Your task to perform on an android device: toggle priority inbox in the gmail app Image 0: 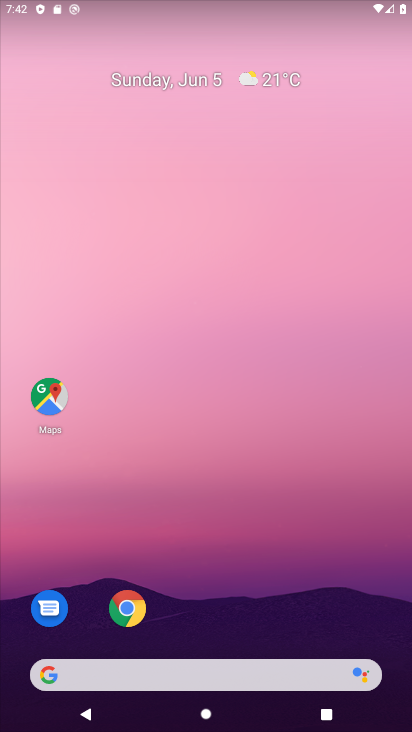
Step 0: drag from (262, 296) to (262, 104)
Your task to perform on an android device: toggle priority inbox in the gmail app Image 1: 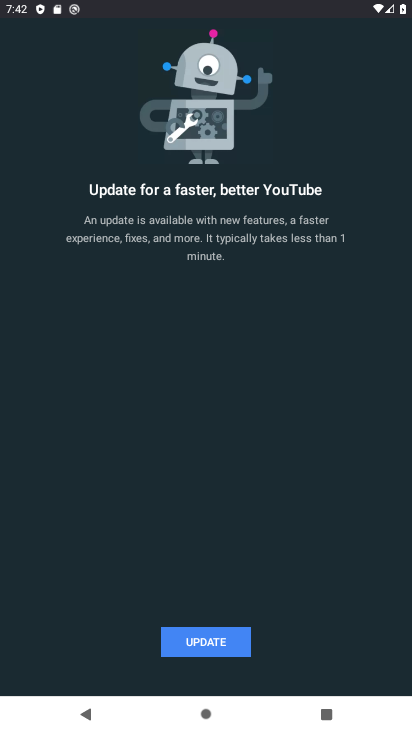
Step 1: press home button
Your task to perform on an android device: toggle priority inbox in the gmail app Image 2: 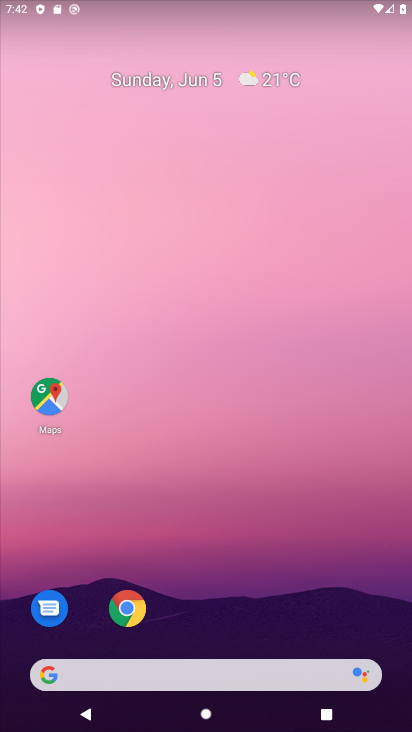
Step 2: drag from (348, 589) to (338, 155)
Your task to perform on an android device: toggle priority inbox in the gmail app Image 3: 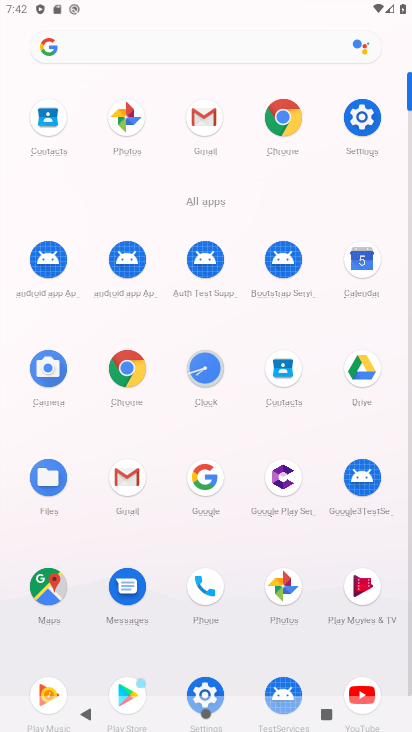
Step 3: click (128, 491)
Your task to perform on an android device: toggle priority inbox in the gmail app Image 4: 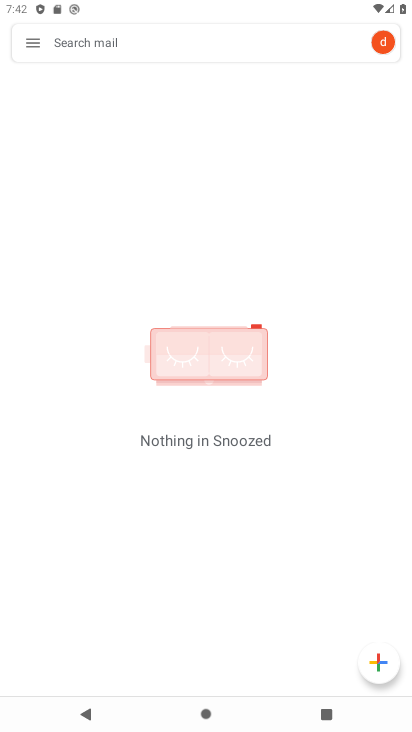
Step 4: click (33, 41)
Your task to perform on an android device: toggle priority inbox in the gmail app Image 5: 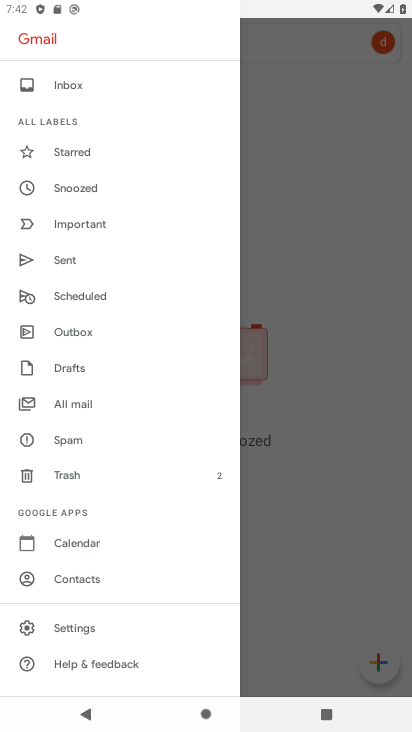
Step 5: click (108, 638)
Your task to perform on an android device: toggle priority inbox in the gmail app Image 6: 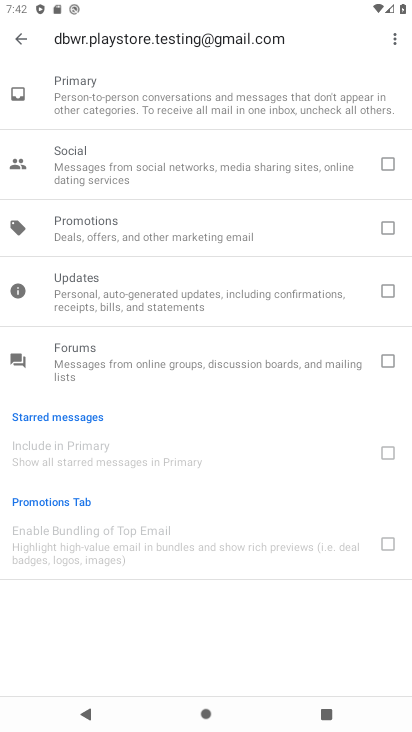
Step 6: click (23, 35)
Your task to perform on an android device: toggle priority inbox in the gmail app Image 7: 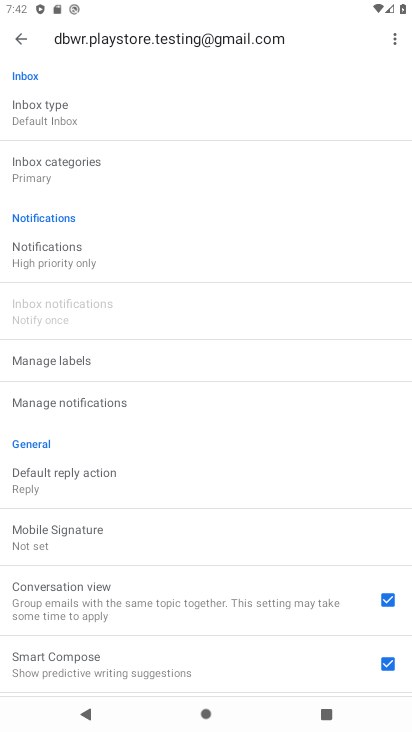
Step 7: click (112, 168)
Your task to perform on an android device: toggle priority inbox in the gmail app Image 8: 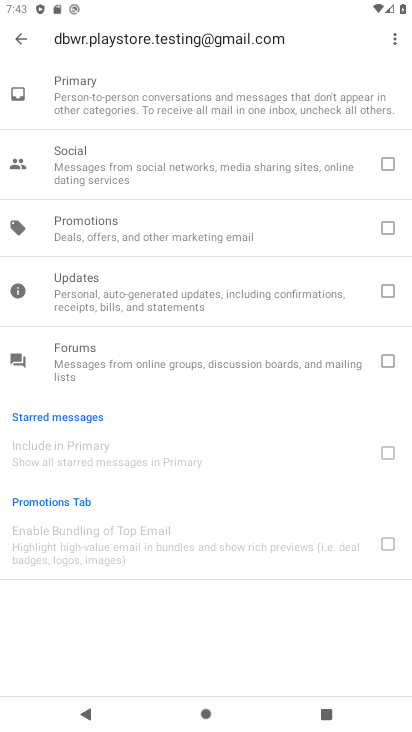
Step 8: click (23, 43)
Your task to perform on an android device: toggle priority inbox in the gmail app Image 9: 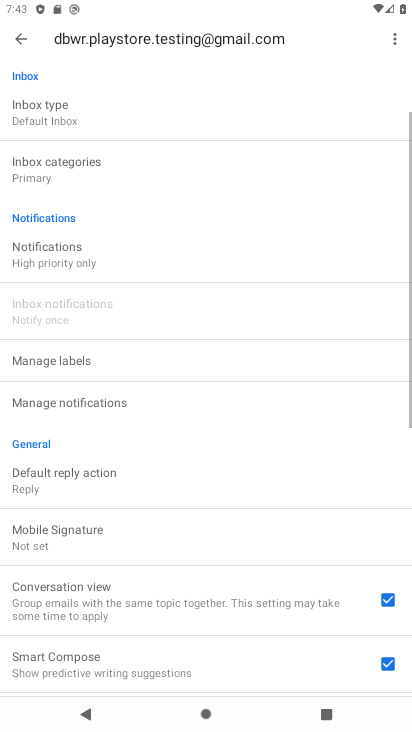
Step 9: drag from (136, 123) to (116, 339)
Your task to perform on an android device: toggle priority inbox in the gmail app Image 10: 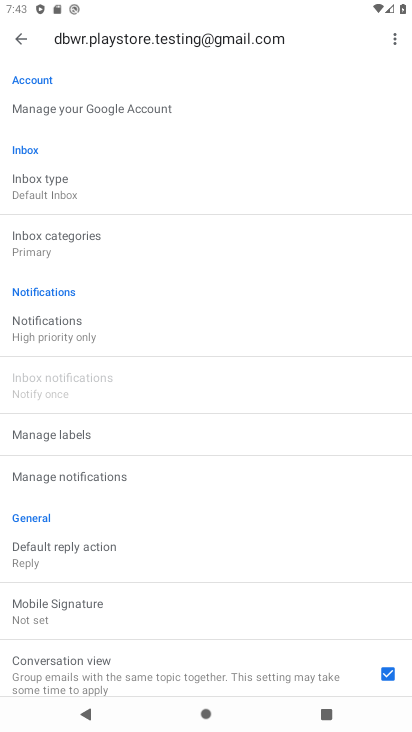
Step 10: click (105, 182)
Your task to perform on an android device: toggle priority inbox in the gmail app Image 11: 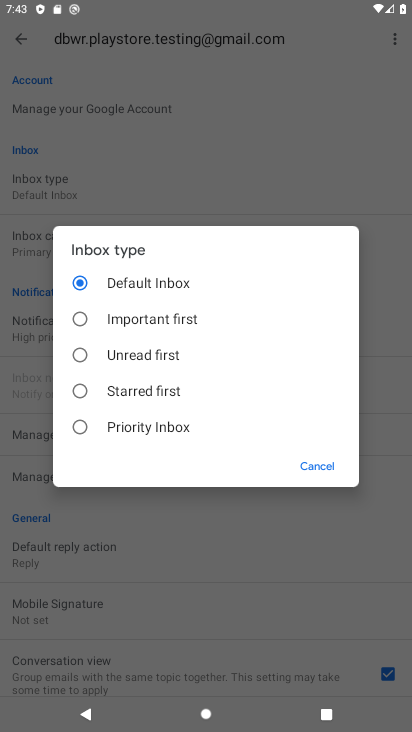
Step 11: click (82, 426)
Your task to perform on an android device: toggle priority inbox in the gmail app Image 12: 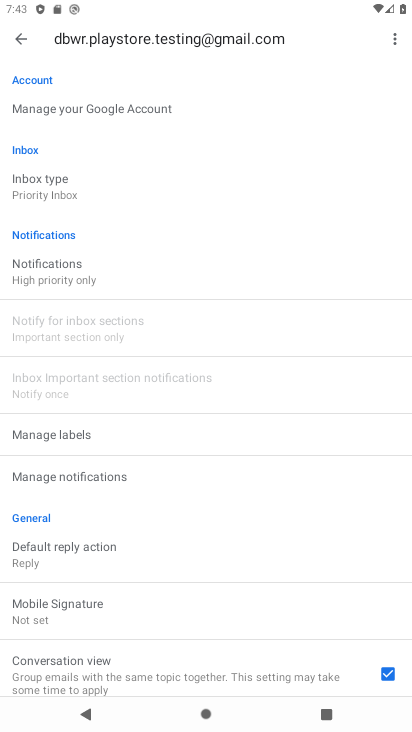
Step 12: task complete